Your task to perform on an android device: Go to CNN.com Image 0: 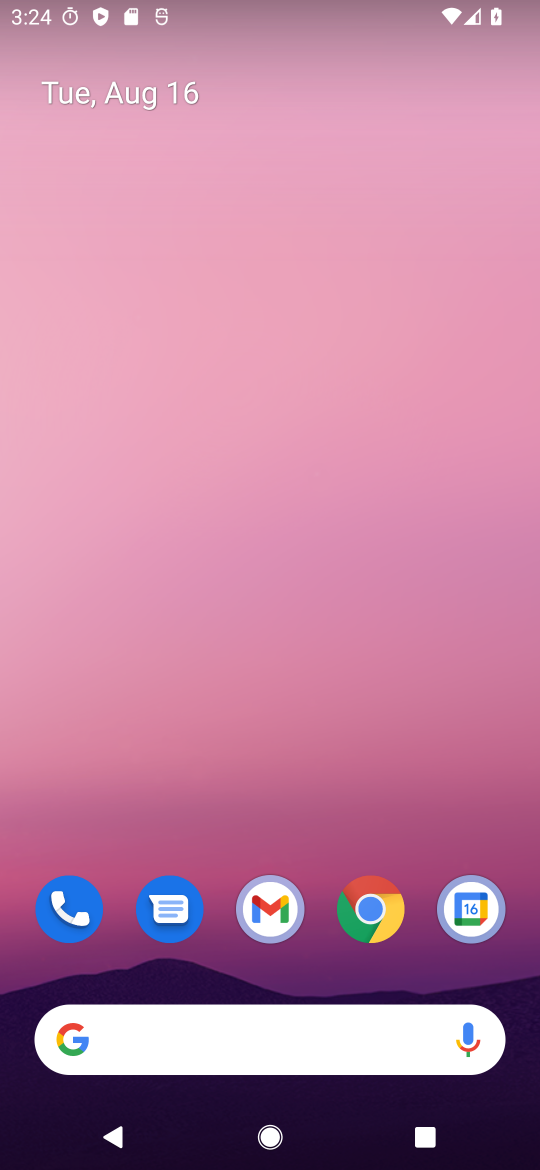
Step 0: drag from (274, 868) to (261, 53)
Your task to perform on an android device: Go to CNN.com Image 1: 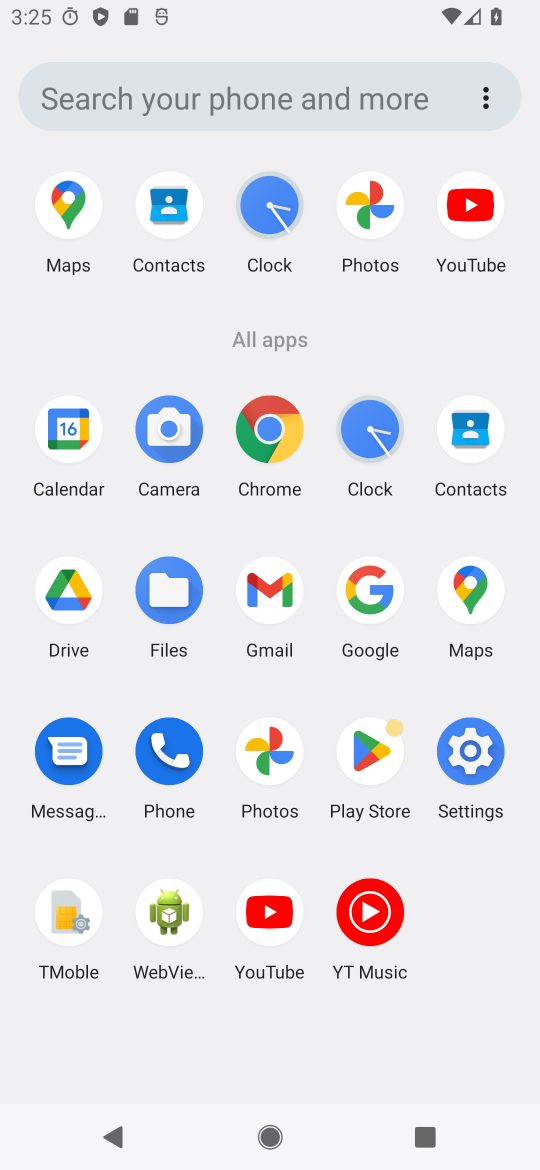
Step 1: click (270, 418)
Your task to perform on an android device: Go to CNN.com Image 2: 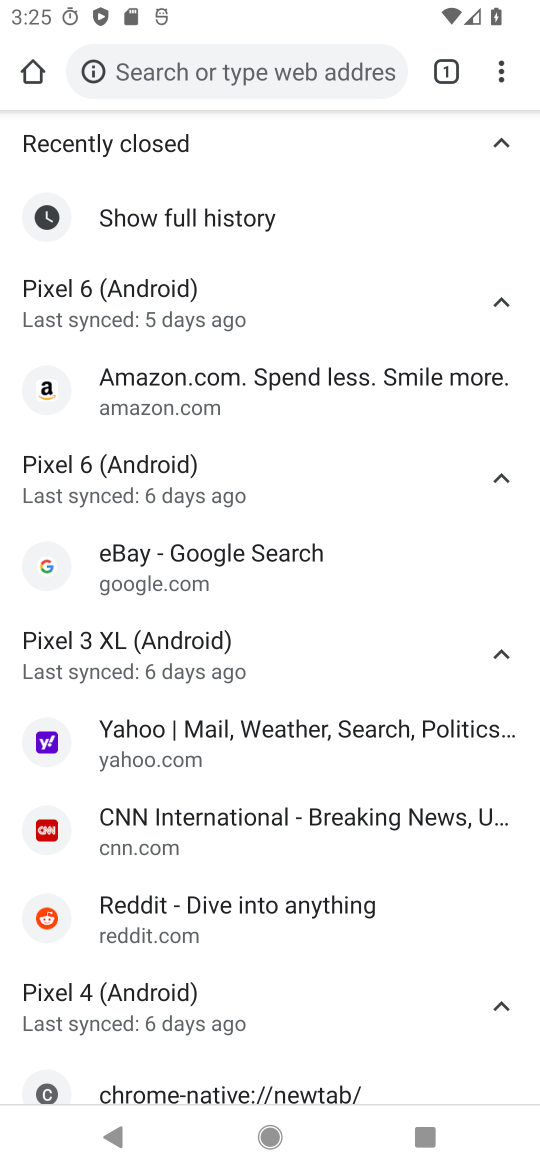
Step 2: click (258, 821)
Your task to perform on an android device: Go to CNN.com Image 3: 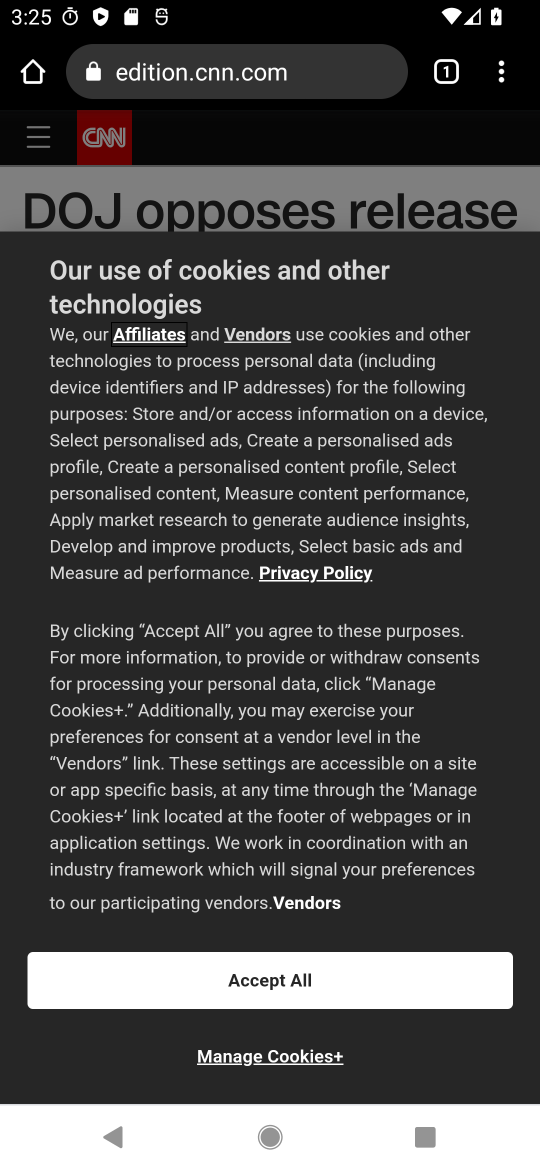
Step 3: task complete